Your task to perform on an android device: Is it going to rain this weekend? Image 0: 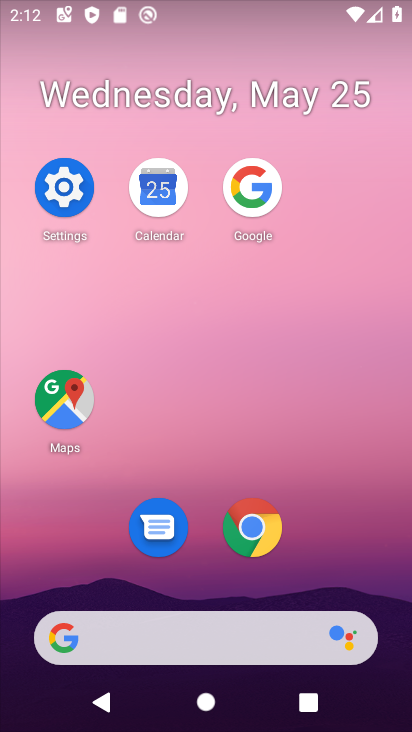
Step 0: click (263, 189)
Your task to perform on an android device: Is it going to rain this weekend? Image 1: 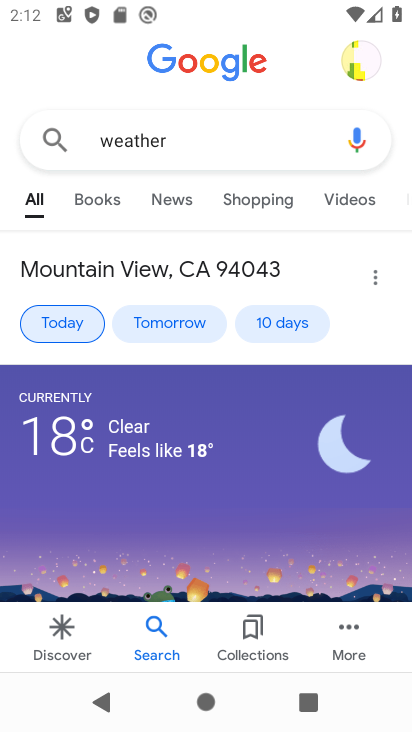
Step 1: click (281, 319)
Your task to perform on an android device: Is it going to rain this weekend? Image 2: 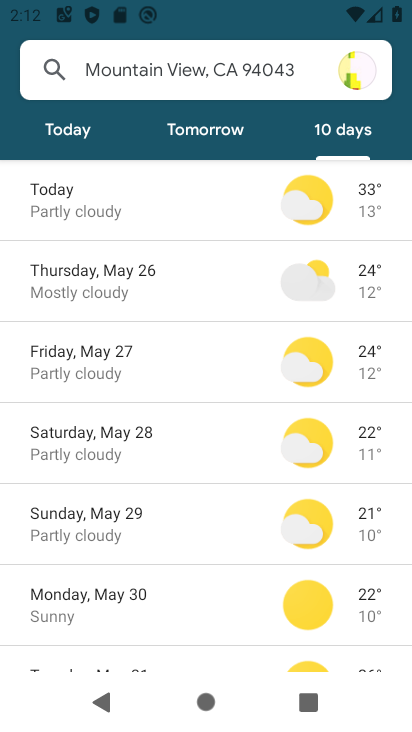
Step 2: click (112, 446)
Your task to perform on an android device: Is it going to rain this weekend? Image 3: 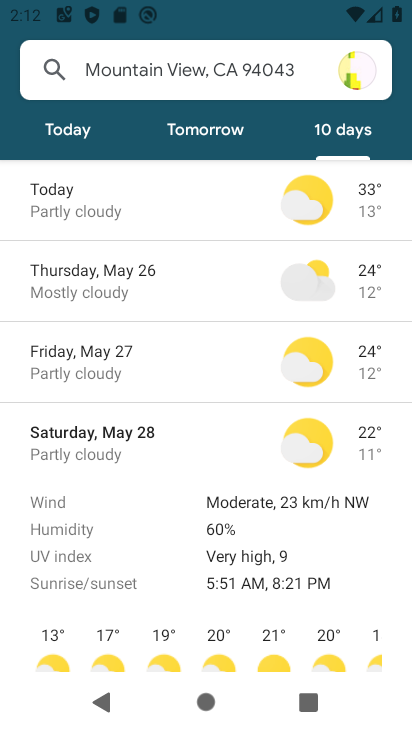
Step 3: task complete